Your task to perform on an android device: Clear the shopping cart on newegg. Image 0: 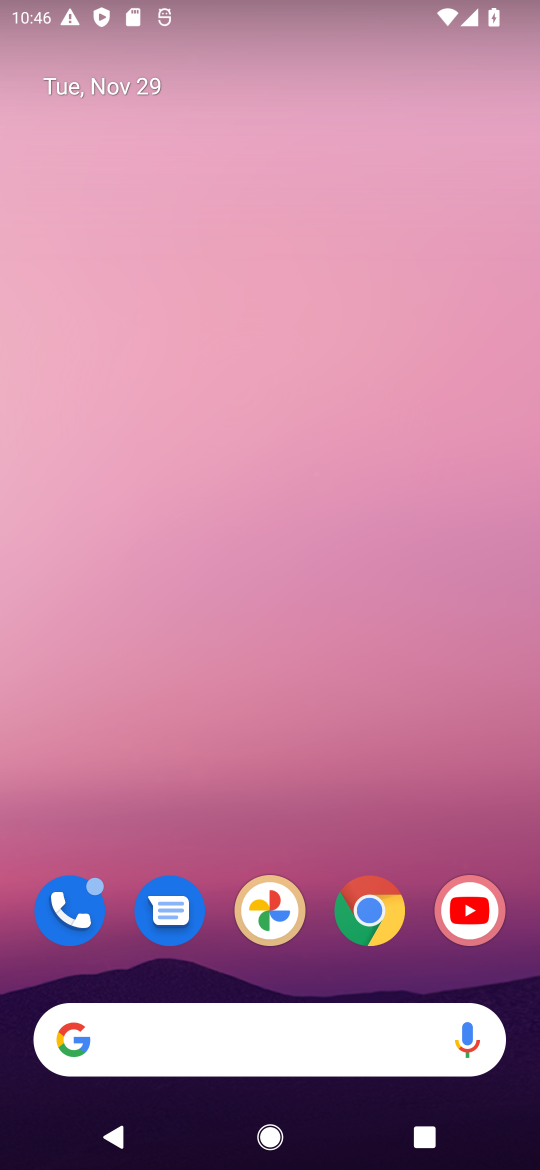
Step 0: click (364, 920)
Your task to perform on an android device: Clear the shopping cart on newegg. Image 1: 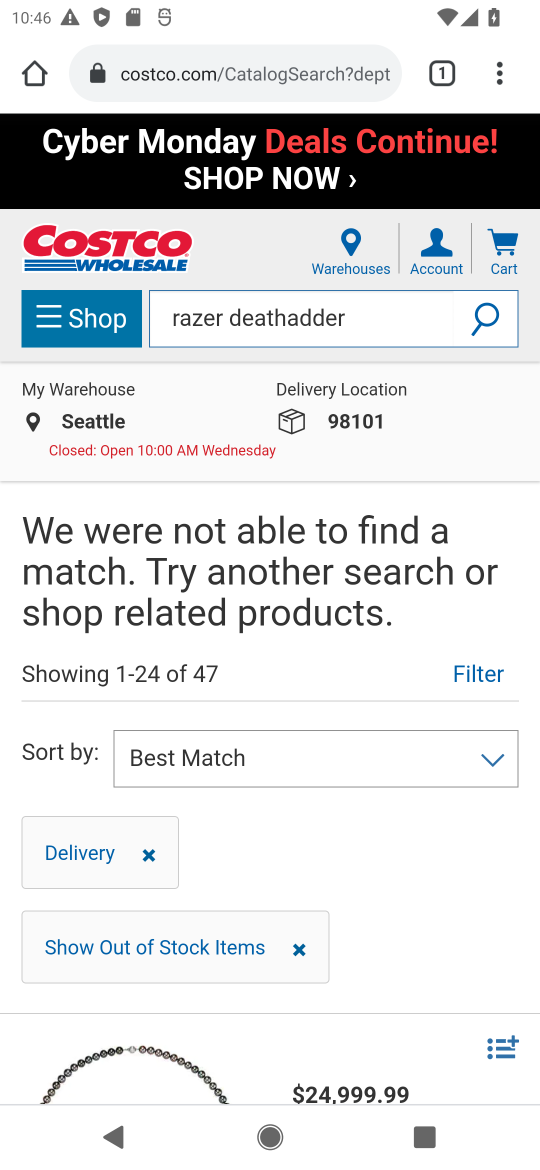
Step 1: click (254, 68)
Your task to perform on an android device: Clear the shopping cart on newegg. Image 2: 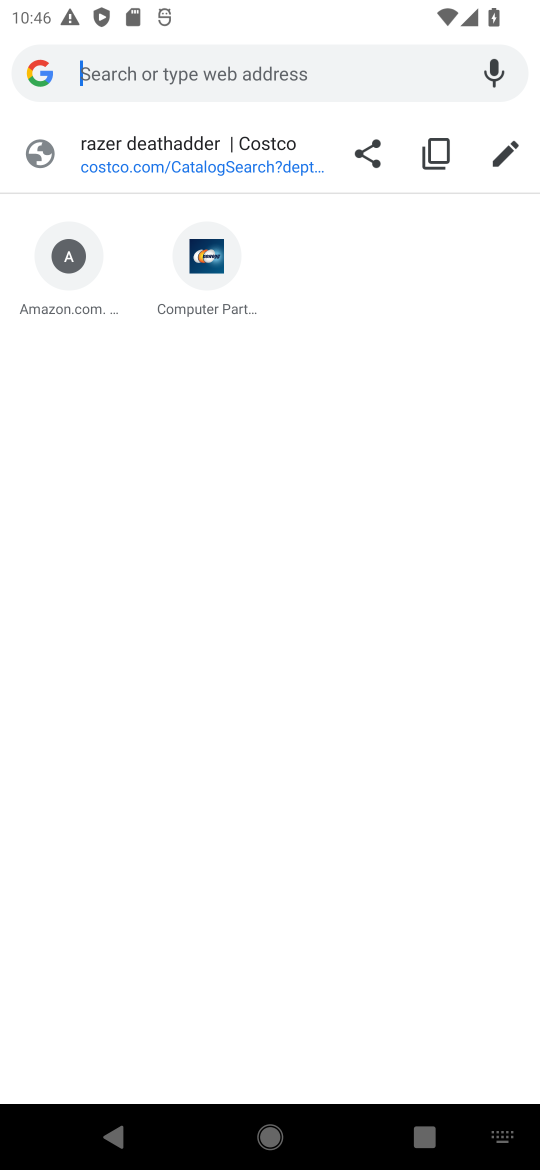
Step 2: click (195, 275)
Your task to perform on an android device: Clear the shopping cart on newegg. Image 3: 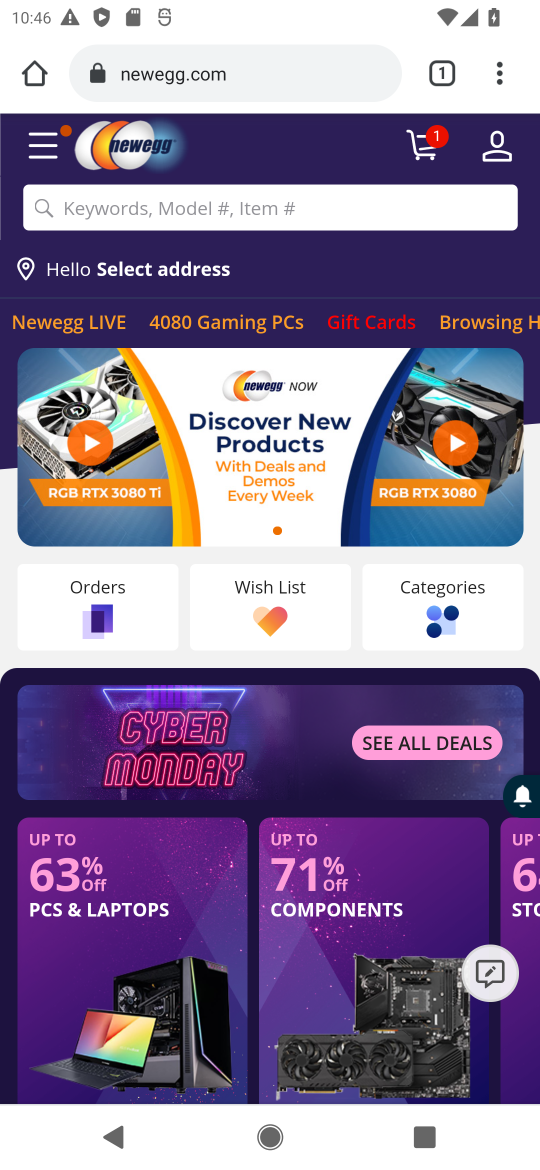
Step 3: click (433, 150)
Your task to perform on an android device: Clear the shopping cart on newegg. Image 4: 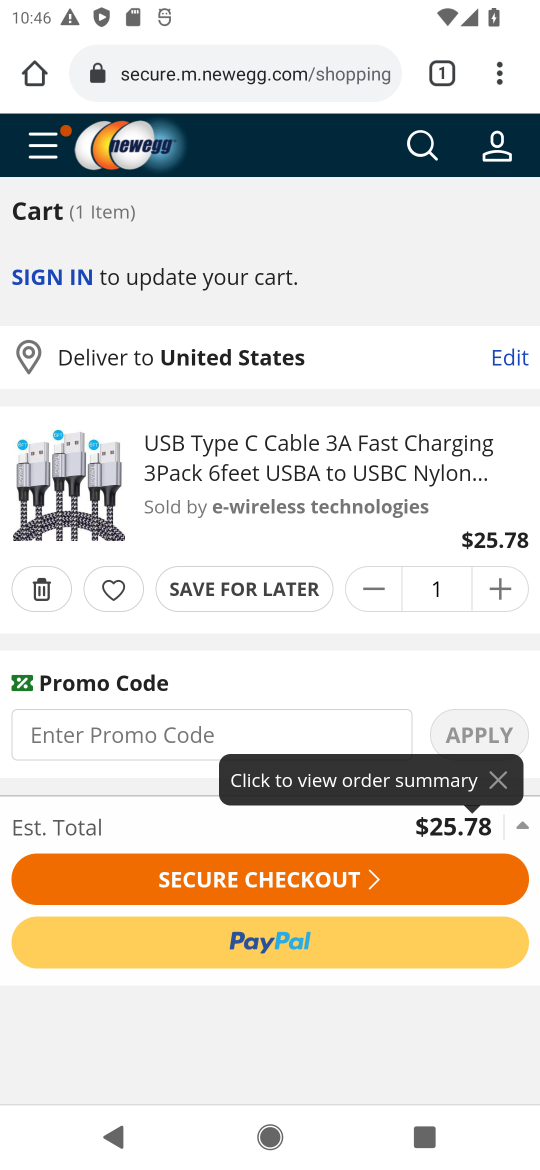
Step 4: click (46, 592)
Your task to perform on an android device: Clear the shopping cart on newegg. Image 5: 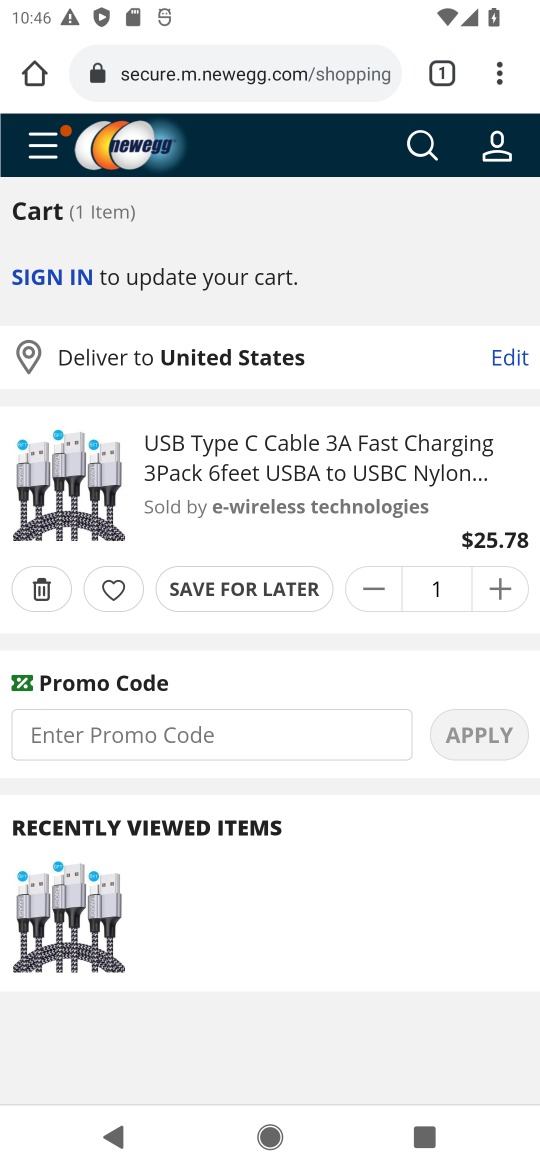
Step 5: click (37, 587)
Your task to perform on an android device: Clear the shopping cart on newegg. Image 6: 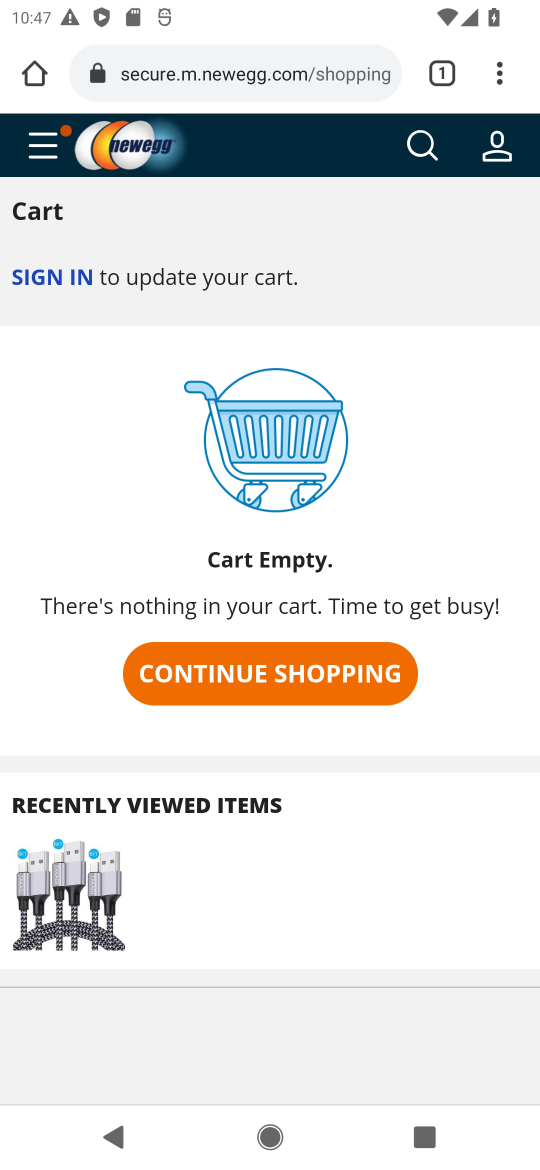
Step 6: task complete